Your task to perform on an android device: toggle priority inbox in the gmail app Image 0: 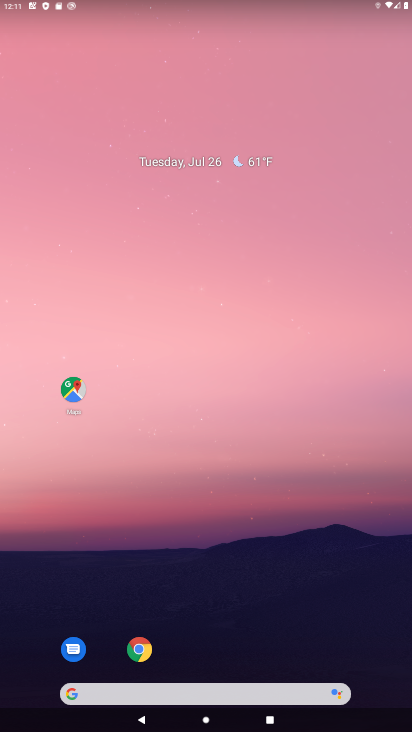
Step 0: drag from (10, 186) to (411, 199)
Your task to perform on an android device: toggle priority inbox in the gmail app Image 1: 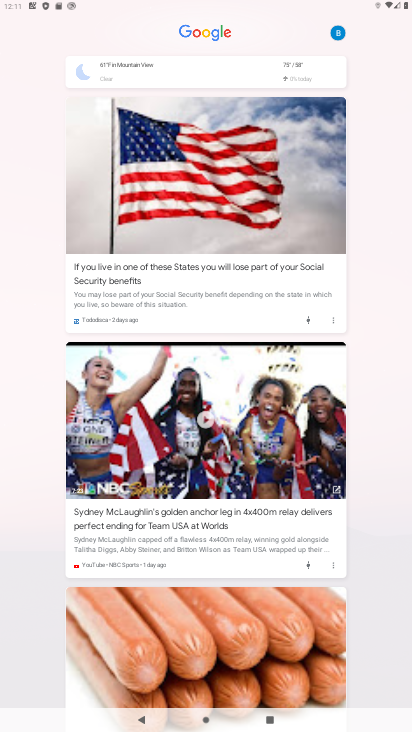
Step 1: click (298, 61)
Your task to perform on an android device: toggle priority inbox in the gmail app Image 2: 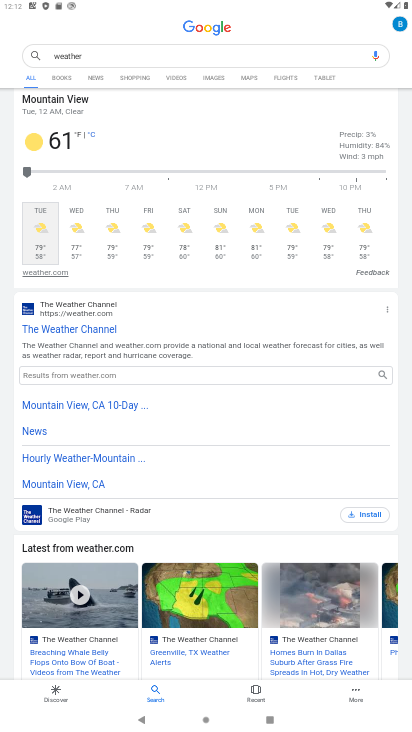
Step 2: press home button
Your task to perform on an android device: toggle priority inbox in the gmail app Image 3: 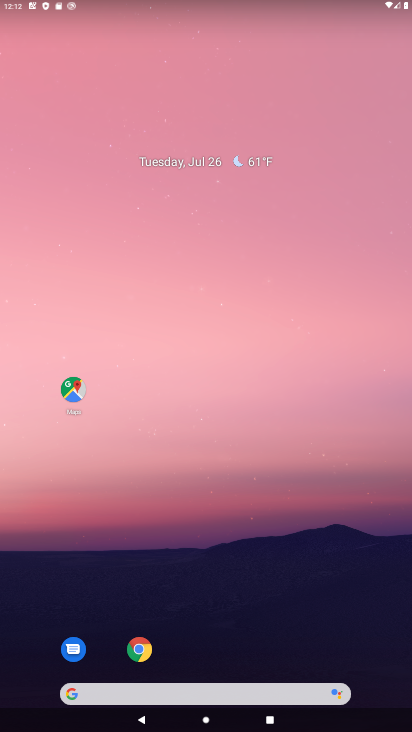
Step 3: drag from (376, 656) to (308, 93)
Your task to perform on an android device: toggle priority inbox in the gmail app Image 4: 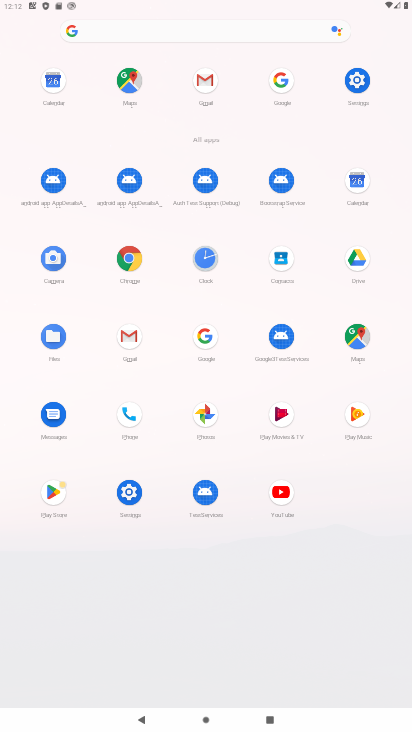
Step 4: click (207, 79)
Your task to perform on an android device: toggle priority inbox in the gmail app Image 5: 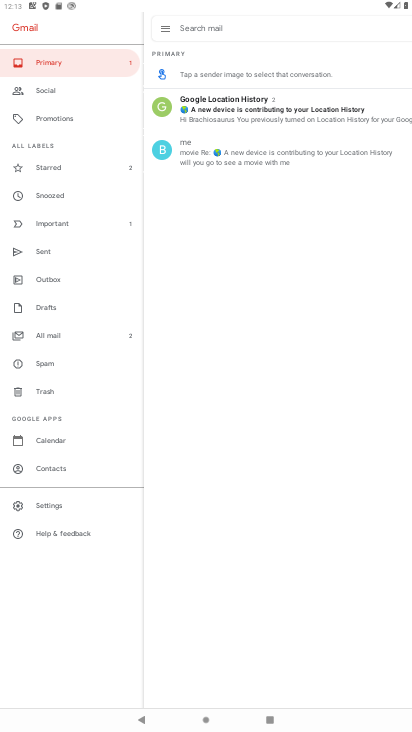
Step 5: click (53, 502)
Your task to perform on an android device: toggle priority inbox in the gmail app Image 6: 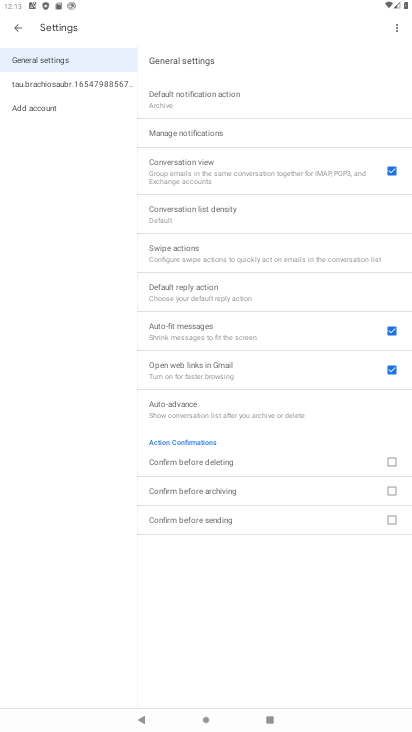
Step 6: click (33, 82)
Your task to perform on an android device: toggle priority inbox in the gmail app Image 7: 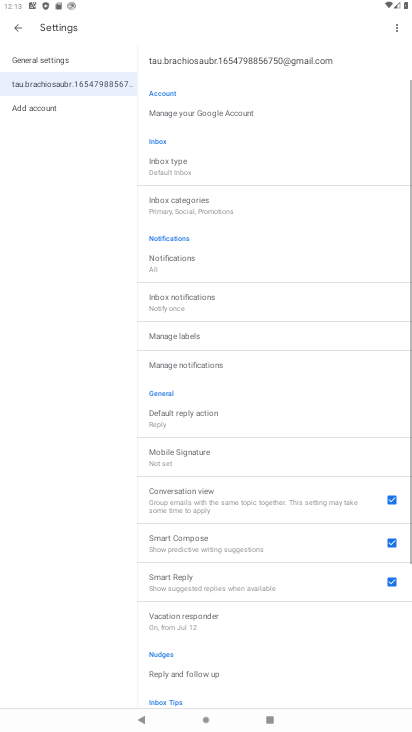
Step 7: click (178, 166)
Your task to perform on an android device: toggle priority inbox in the gmail app Image 8: 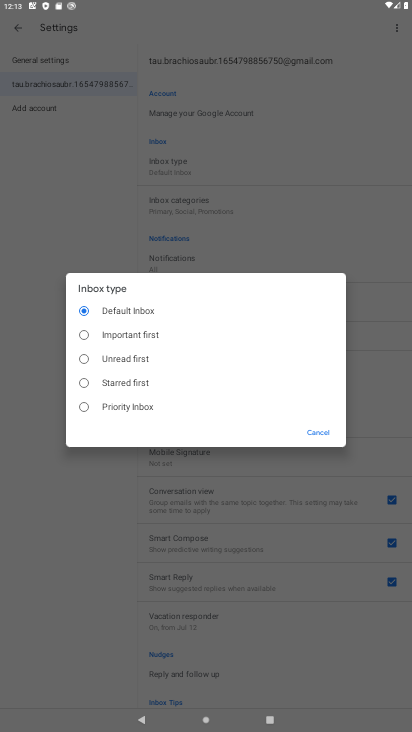
Step 8: click (140, 410)
Your task to perform on an android device: toggle priority inbox in the gmail app Image 9: 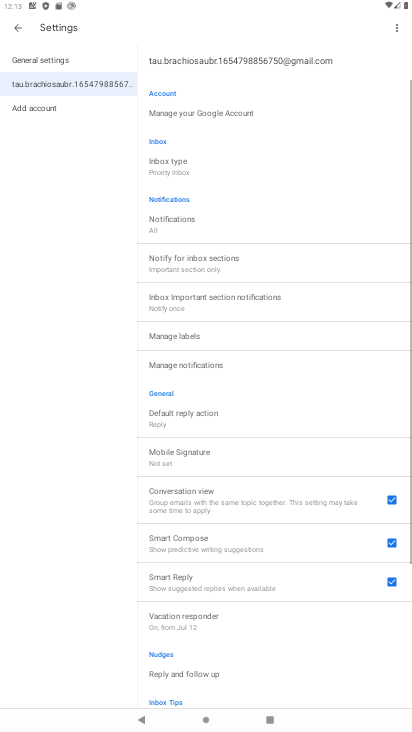
Step 9: task complete